Your task to perform on an android device: open app "Skype" (install if not already installed) and enter user name: "rumor@gmail.com" and password: "kinsman" Image 0: 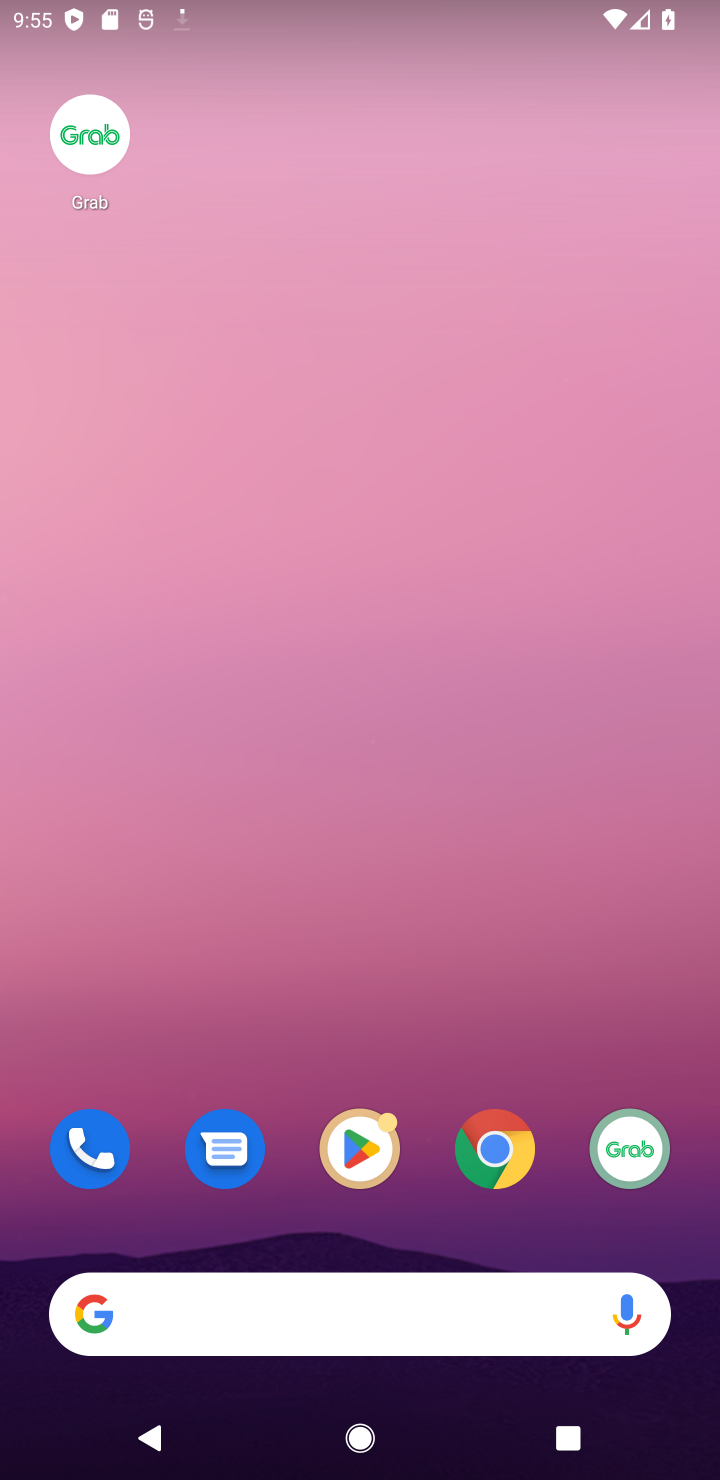
Step 0: click (367, 1171)
Your task to perform on an android device: open app "Skype" (install if not already installed) and enter user name: "rumor@gmail.com" and password: "kinsman" Image 1: 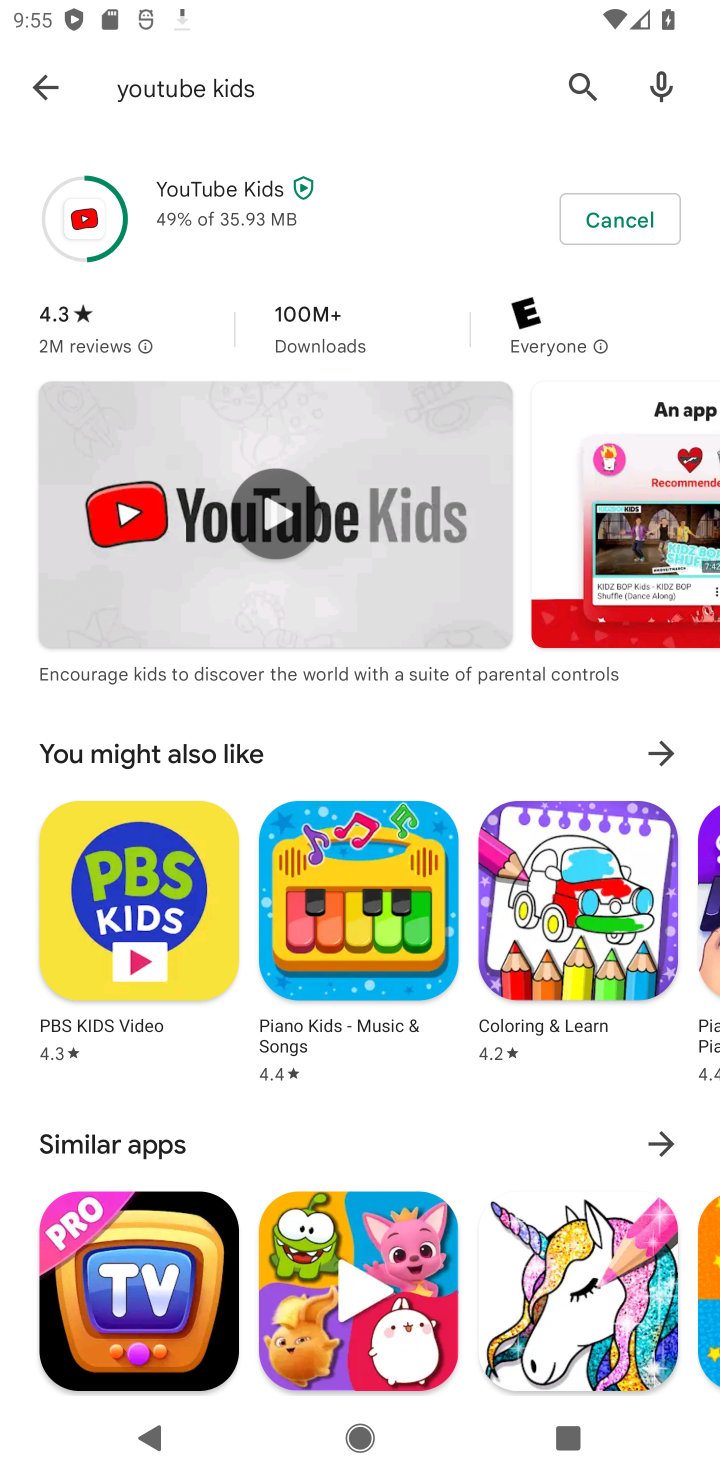
Step 1: click (573, 107)
Your task to perform on an android device: open app "Skype" (install if not already installed) and enter user name: "rumor@gmail.com" and password: "kinsman" Image 2: 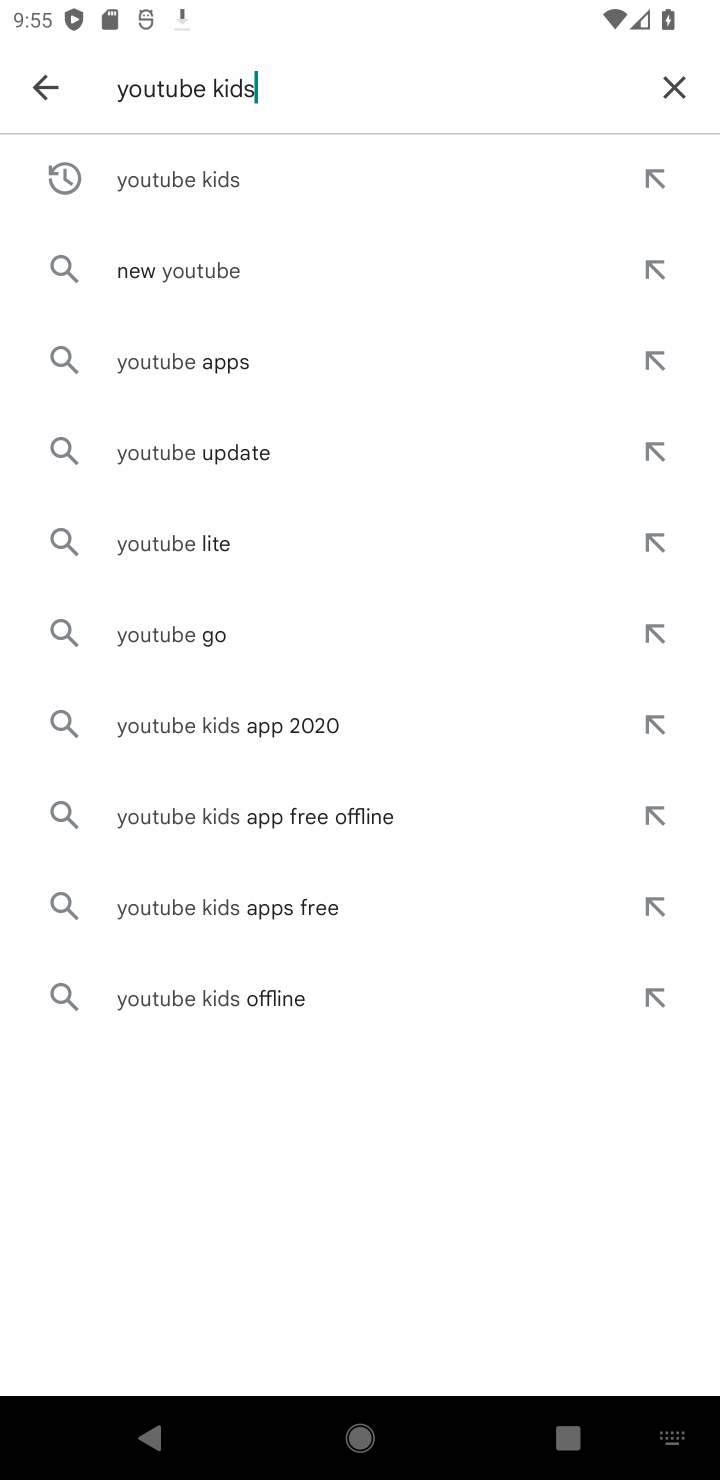
Step 2: click (666, 92)
Your task to perform on an android device: open app "Skype" (install if not already installed) and enter user name: "rumor@gmail.com" and password: "kinsman" Image 3: 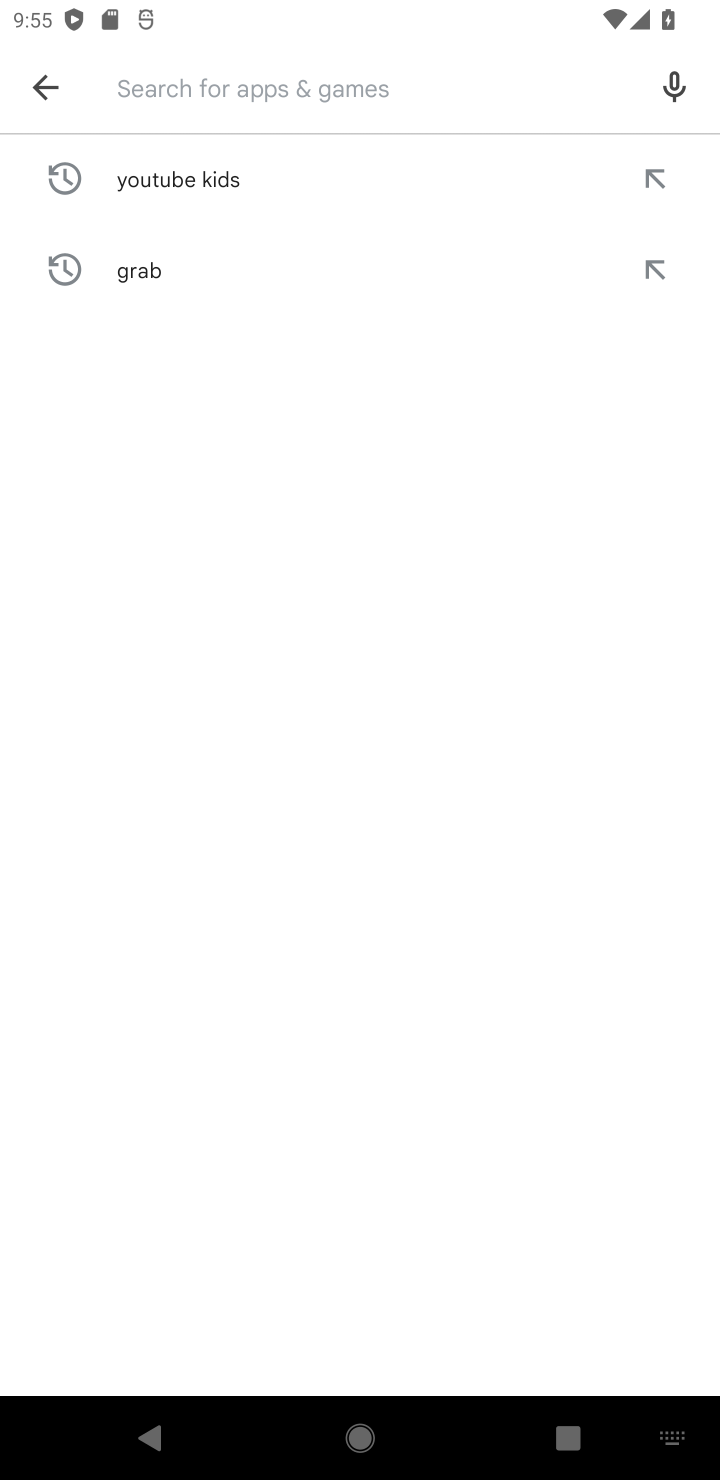
Step 3: type "skype"
Your task to perform on an android device: open app "Skype" (install if not already installed) and enter user name: "rumor@gmail.com" and password: "kinsman" Image 4: 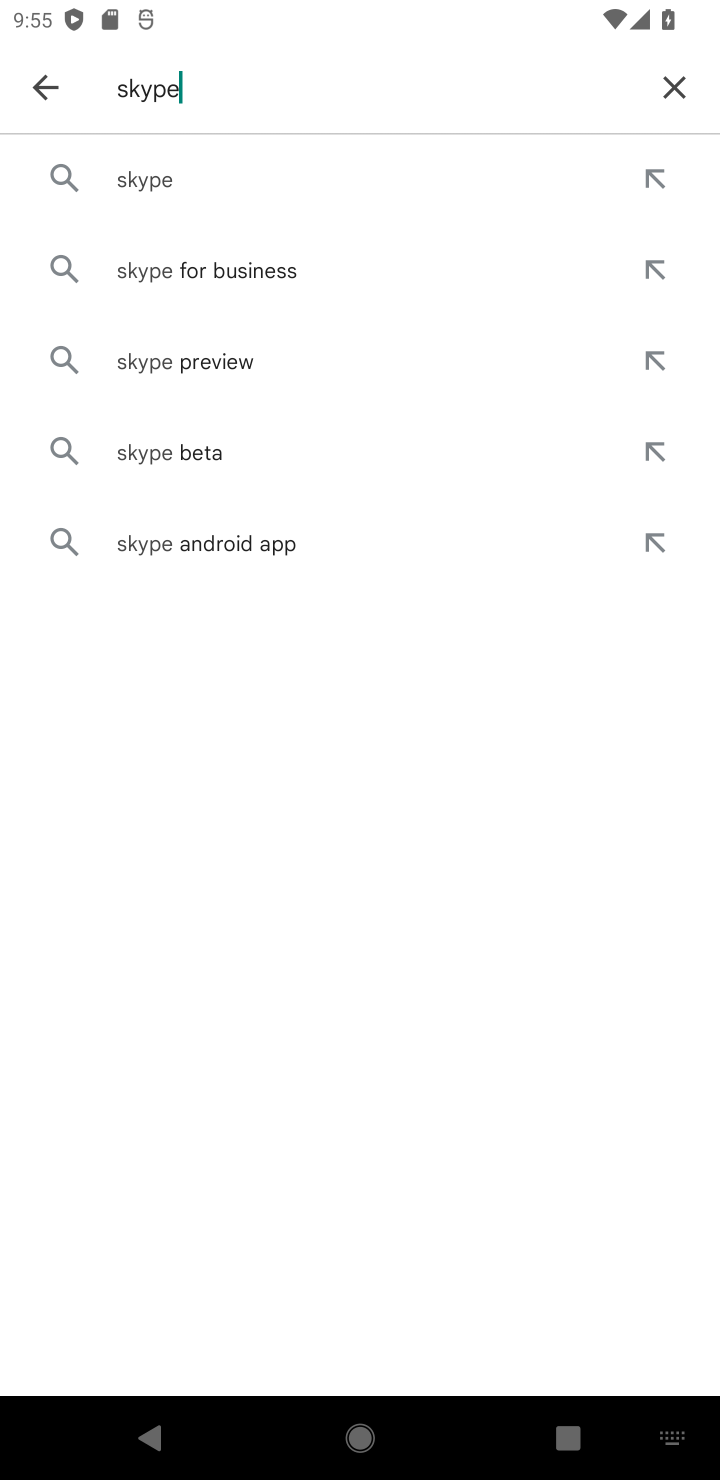
Step 4: click (372, 186)
Your task to perform on an android device: open app "Skype" (install if not already installed) and enter user name: "rumor@gmail.com" and password: "kinsman" Image 5: 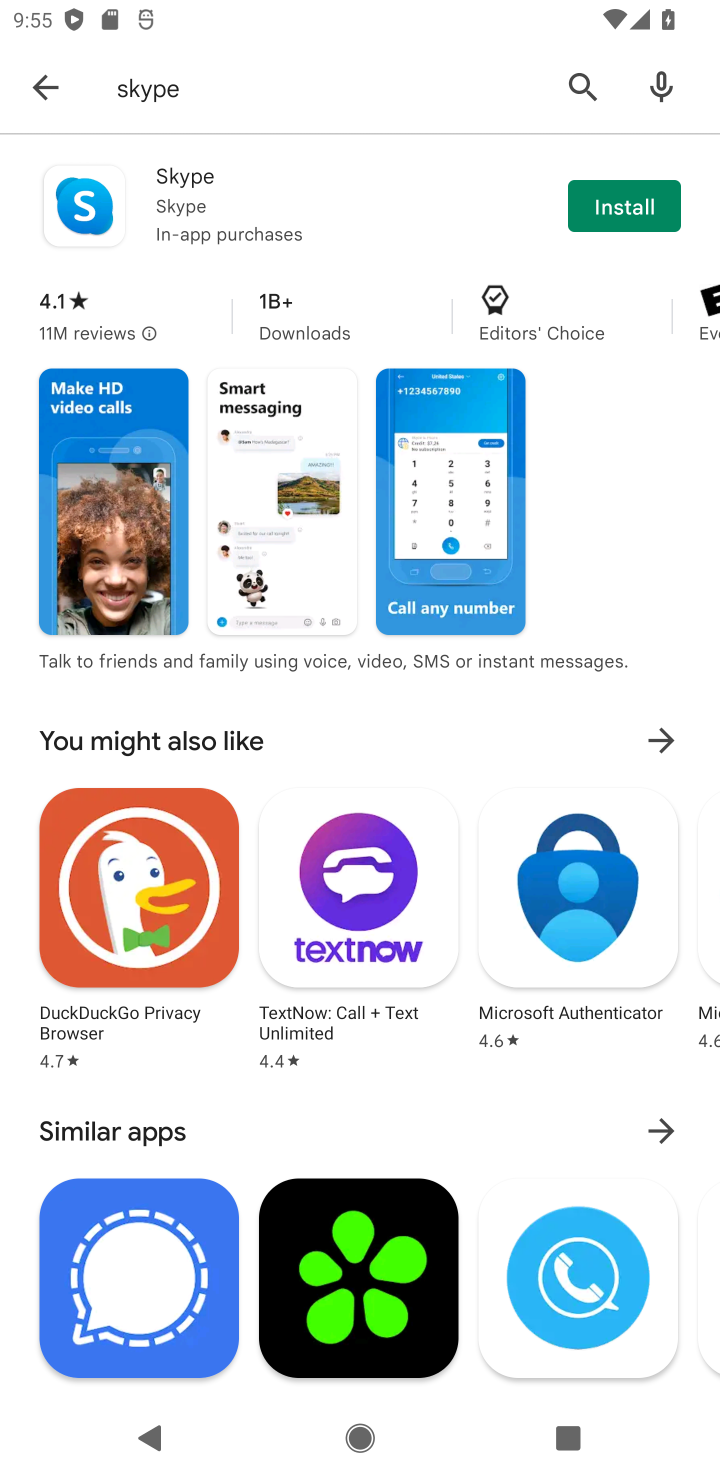
Step 5: click (624, 204)
Your task to perform on an android device: open app "Skype" (install if not already installed) and enter user name: "rumor@gmail.com" and password: "kinsman" Image 6: 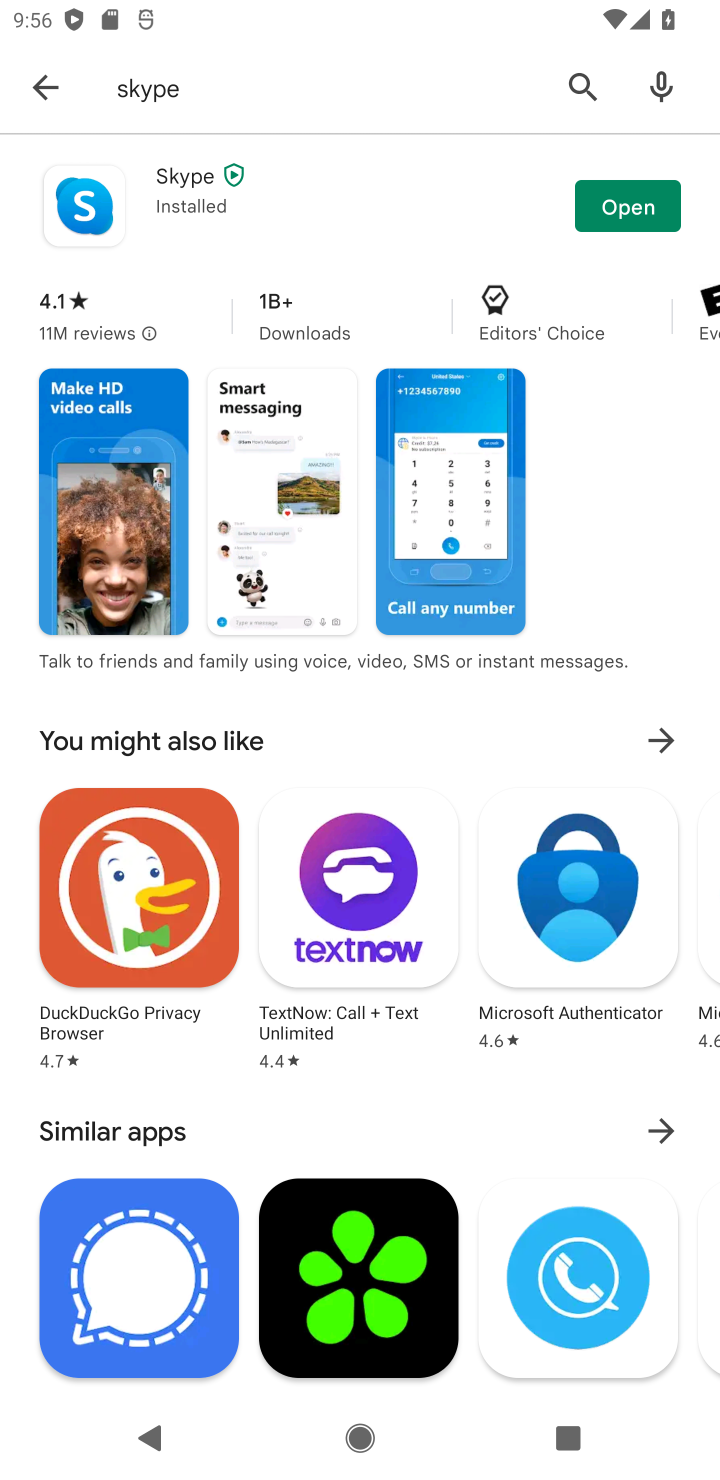
Step 6: click (577, 222)
Your task to perform on an android device: open app "Skype" (install if not already installed) and enter user name: "rumor@gmail.com" and password: "kinsman" Image 7: 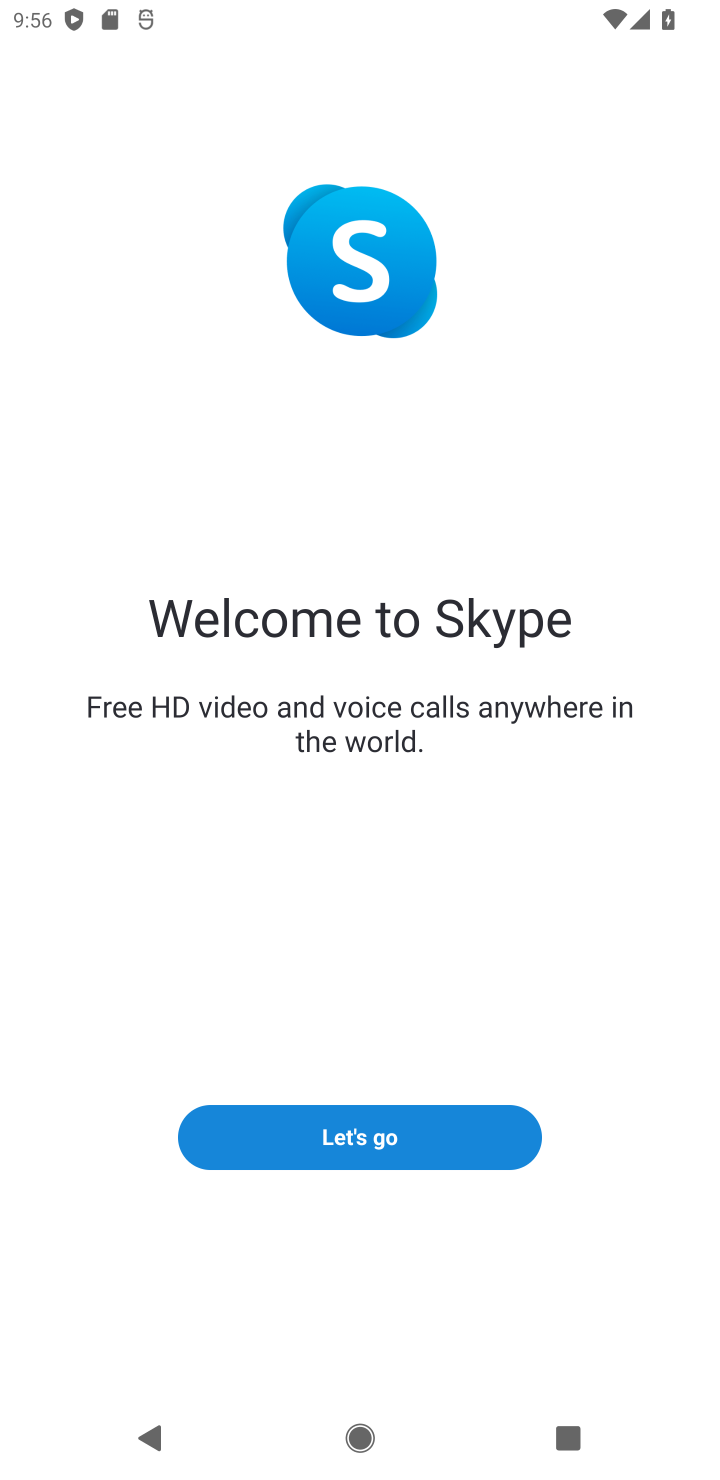
Step 7: click (301, 1125)
Your task to perform on an android device: open app "Skype" (install if not already installed) and enter user name: "rumor@gmail.com" and password: "kinsman" Image 8: 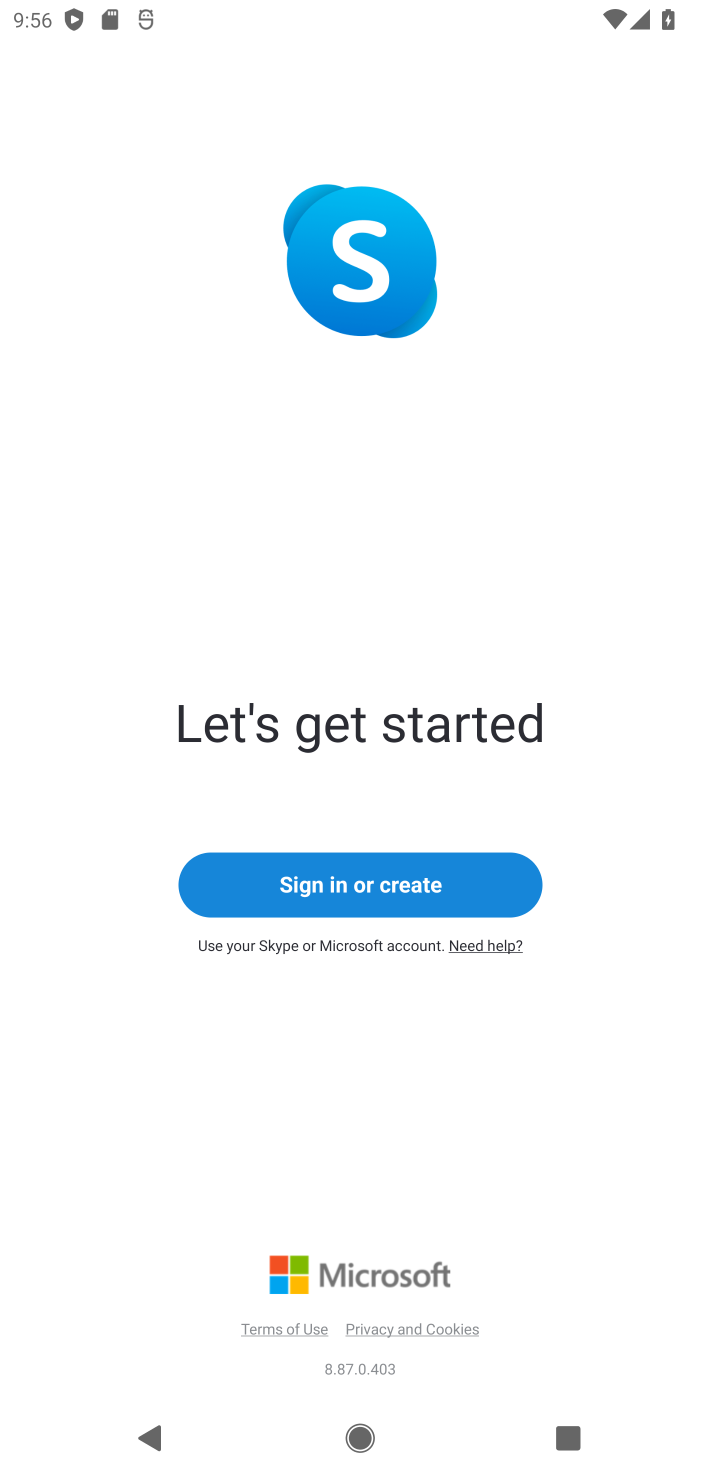
Step 8: click (335, 902)
Your task to perform on an android device: open app "Skype" (install if not already installed) and enter user name: "rumor@gmail.com" and password: "kinsman" Image 9: 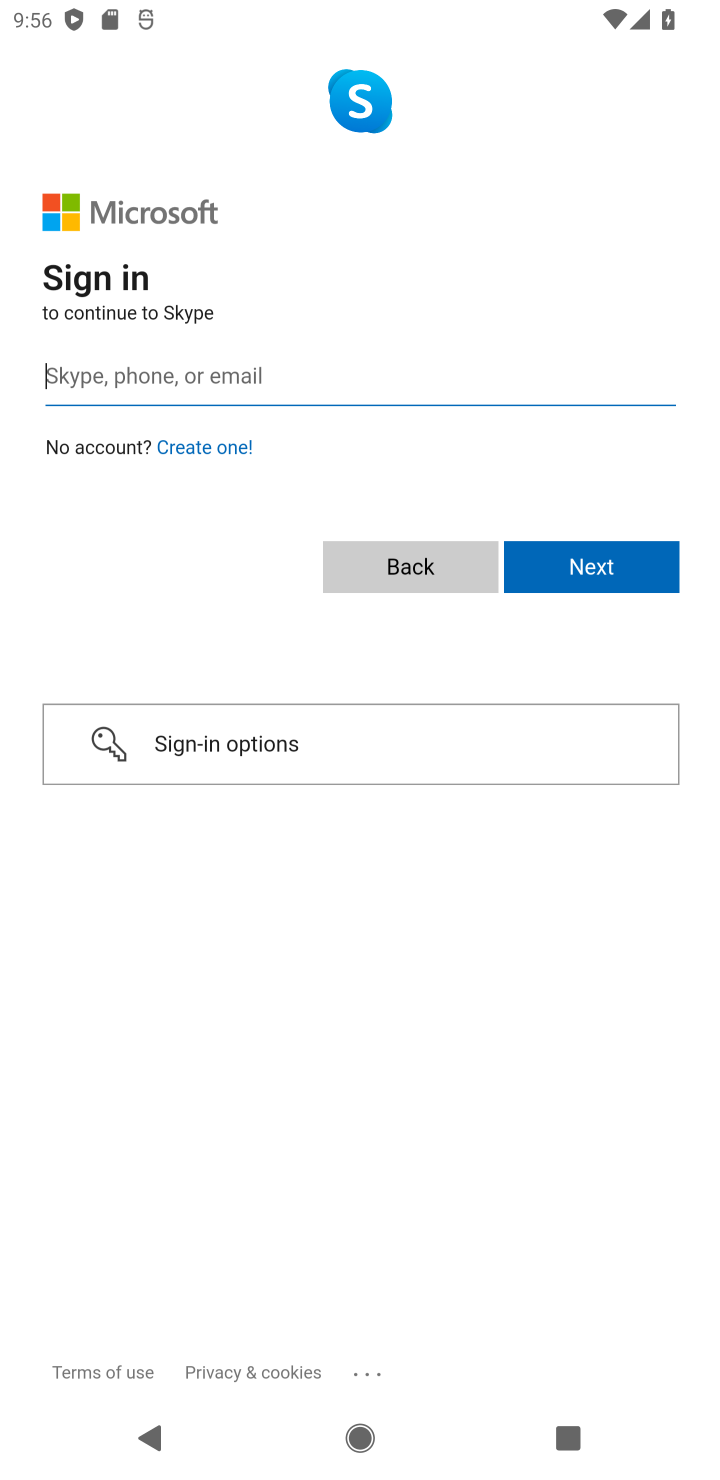
Step 9: type "rumor@gmail.com"
Your task to perform on an android device: open app "Skype" (install if not already installed) and enter user name: "rumor@gmail.com" and password: "kinsman" Image 10: 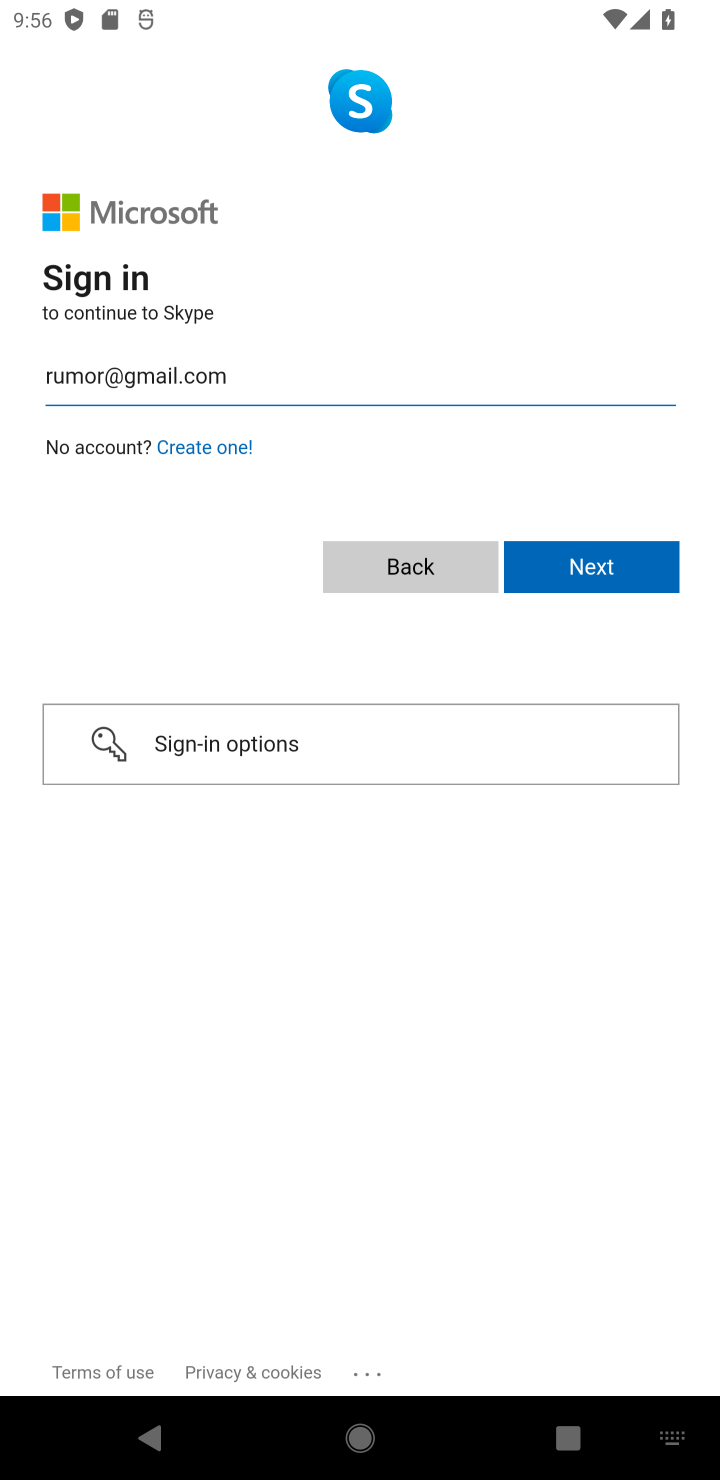
Step 10: click (606, 562)
Your task to perform on an android device: open app "Skype" (install if not already installed) and enter user name: "rumor@gmail.com" and password: "kinsman" Image 11: 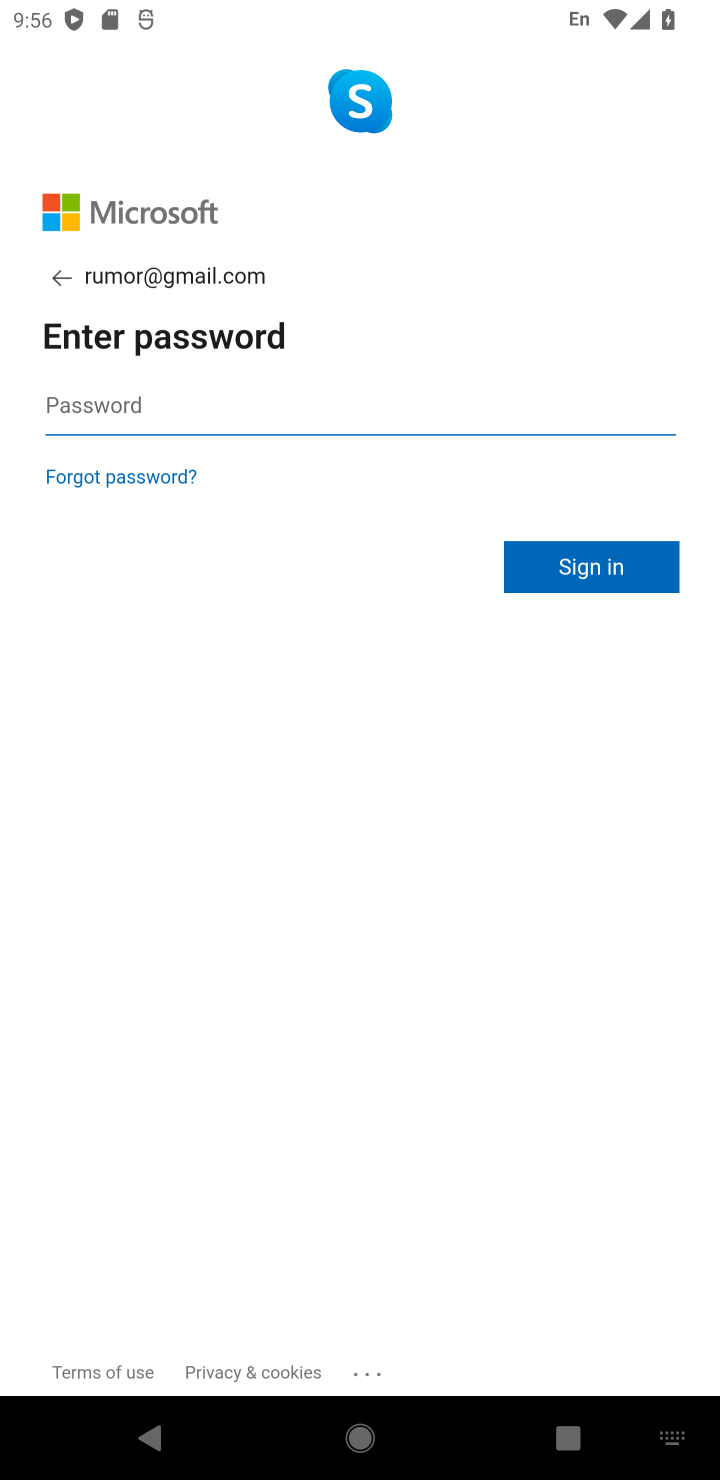
Step 11: type "kinsman"
Your task to perform on an android device: open app "Skype" (install if not already installed) and enter user name: "rumor@gmail.com" and password: "kinsman" Image 12: 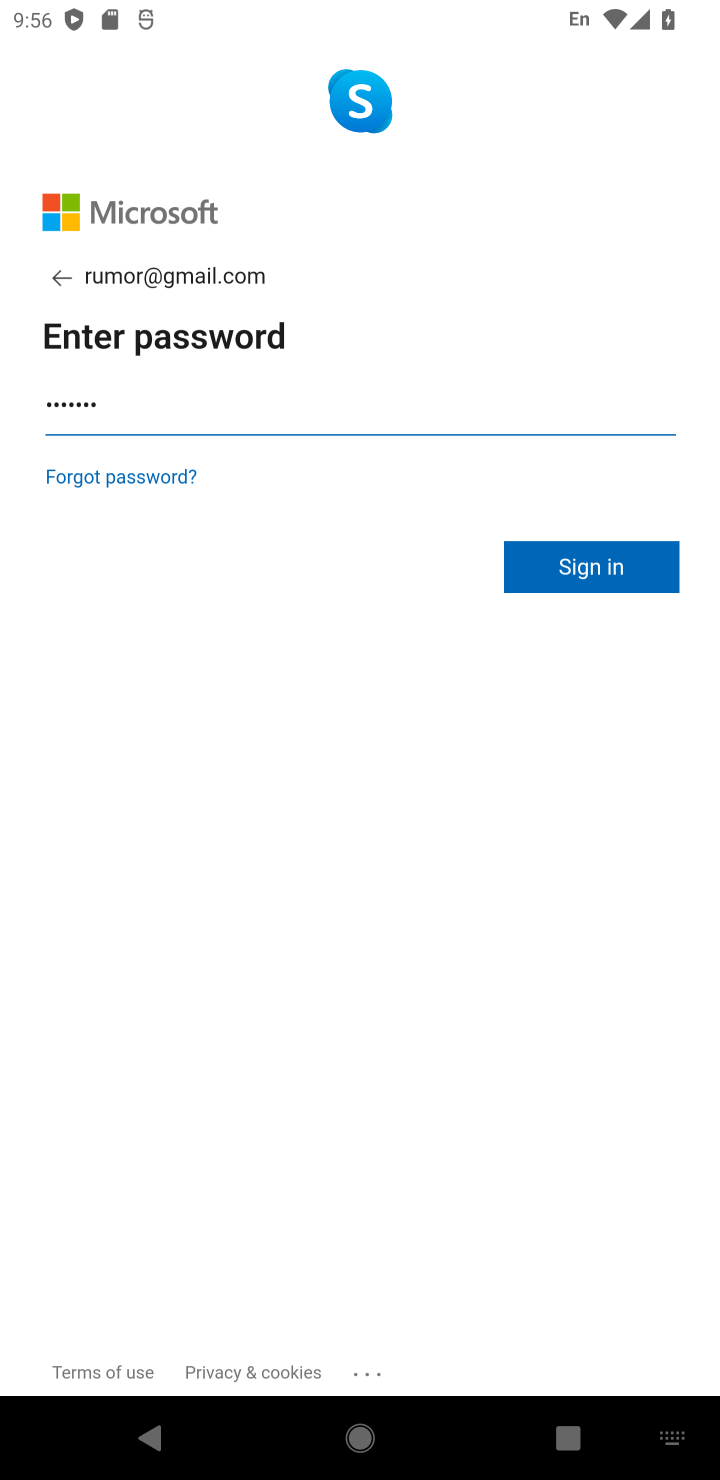
Step 12: click (603, 561)
Your task to perform on an android device: open app "Skype" (install if not already installed) and enter user name: "rumor@gmail.com" and password: "kinsman" Image 13: 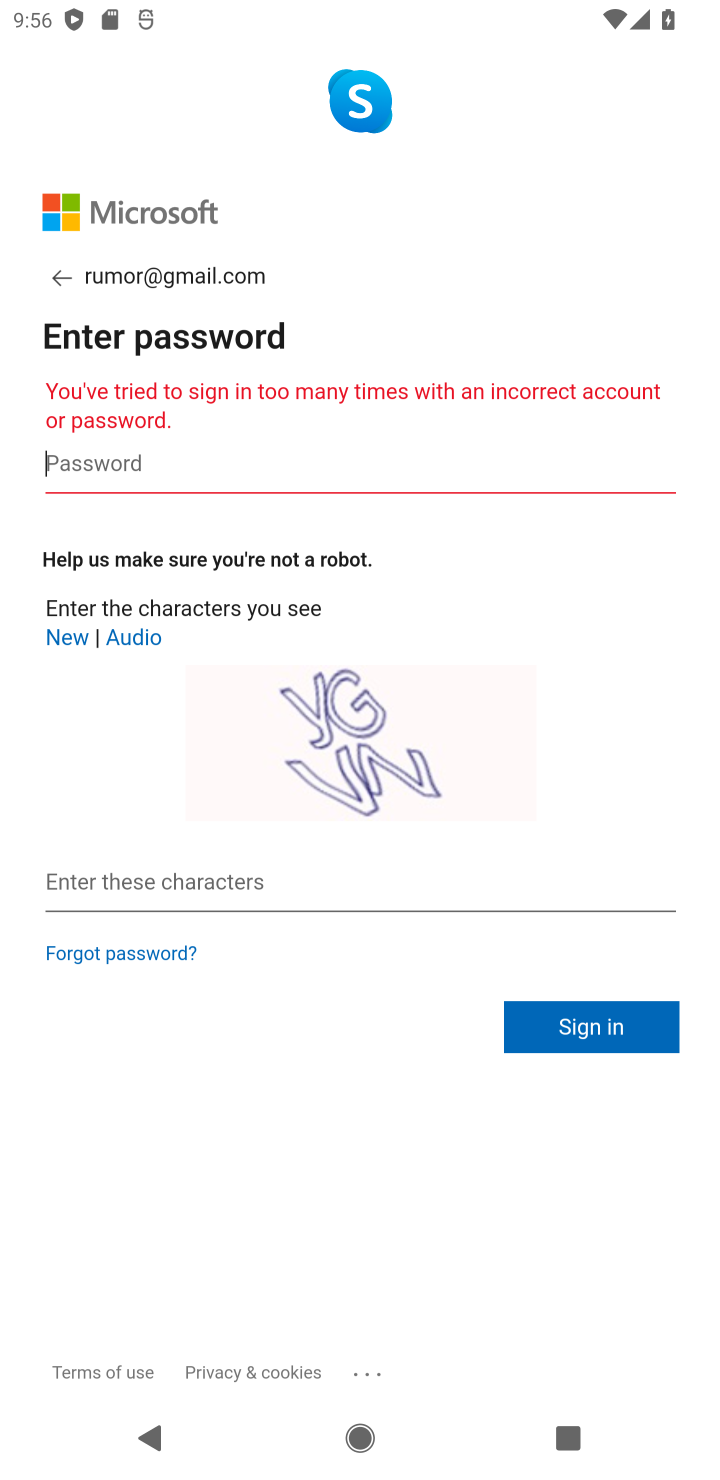
Step 13: task complete